Your task to perform on an android device: turn off translation in the chrome app Image 0: 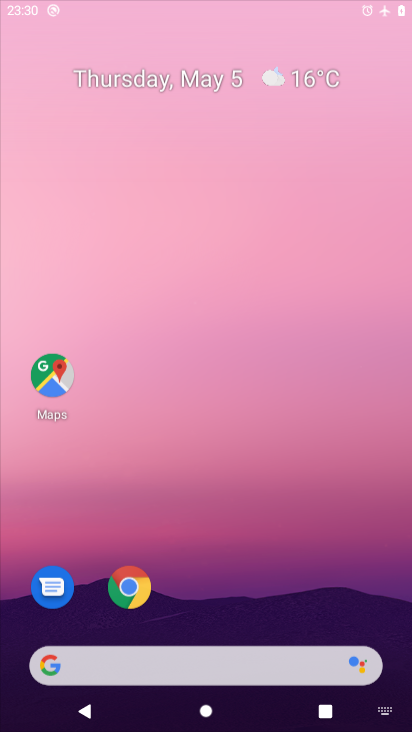
Step 0: click (149, 161)
Your task to perform on an android device: turn off translation in the chrome app Image 1: 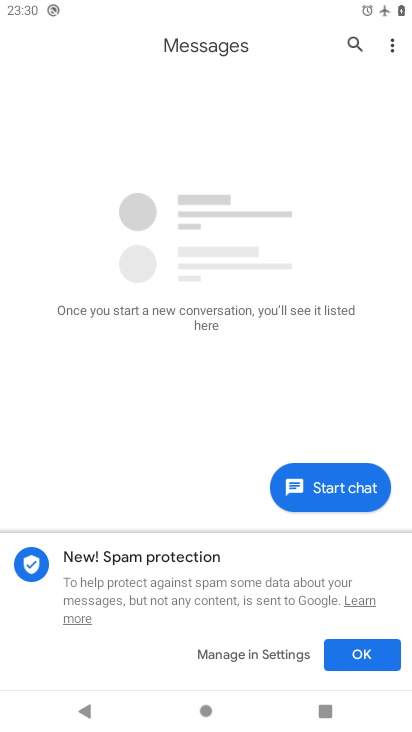
Step 1: press home button
Your task to perform on an android device: turn off translation in the chrome app Image 2: 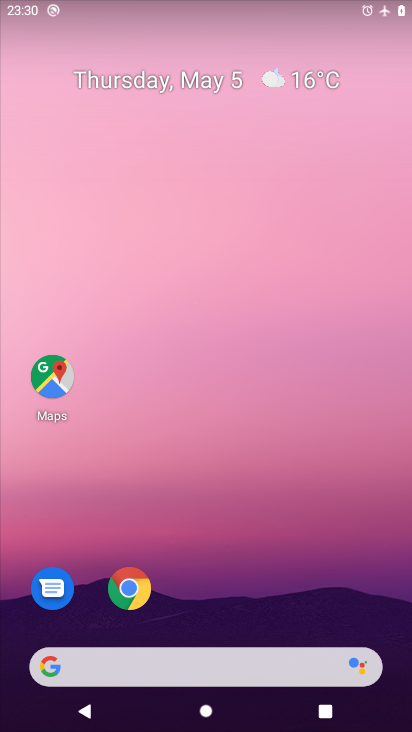
Step 2: drag from (237, 614) to (217, 190)
Your task to perform on an android device: turn off translation in the chrome app Image 3: 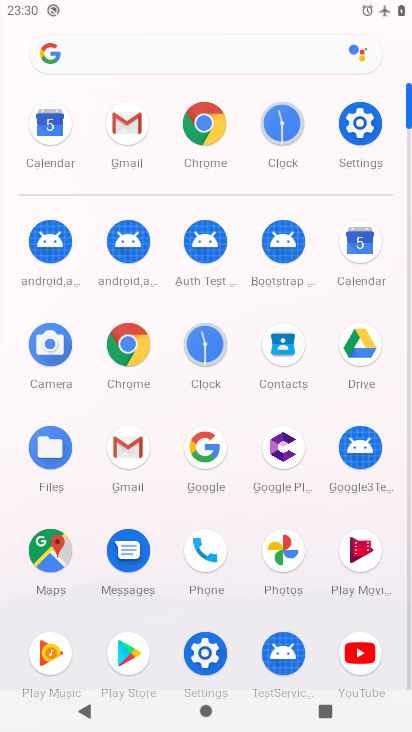
Step 3: click (214, 132)
Your task to perform on an android device: turn off translation in the chrome app Image 4: 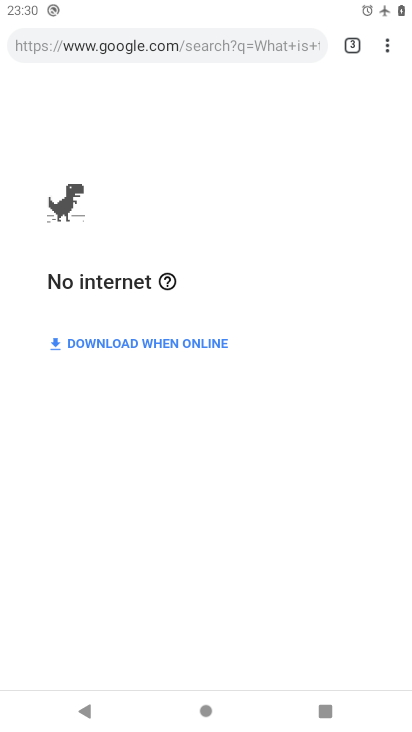
Step 4: drag from (394, 42) to (270, 500)
Your task to perform on an android device: turn off translation in the chrome app Image 5: 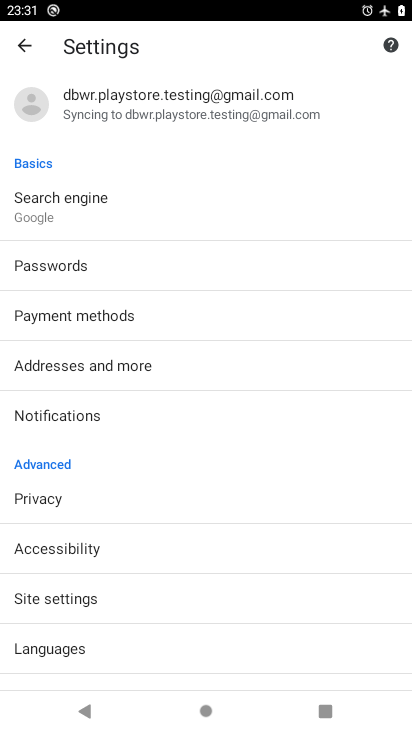
Step 5: drag from (234, 624) to (205, 448)
Your task to perform on an android device: turn off translation in the chrome app Image 6: 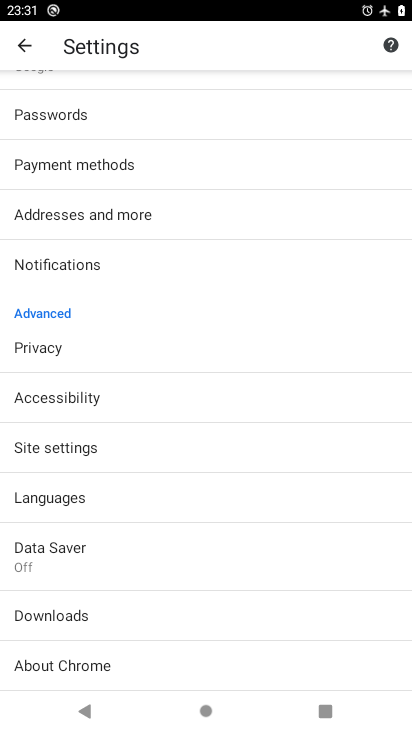
Step 6: click (204, 500)
Your task to perform on an android device: turn off translation in the chrome app Image 7: 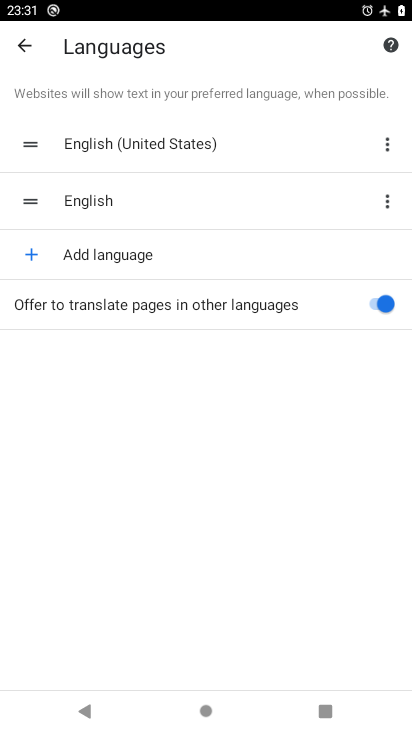
Step 7: click (384, 312)
Your task to perform on an android device: turn off translation in the chrome app Image 8: 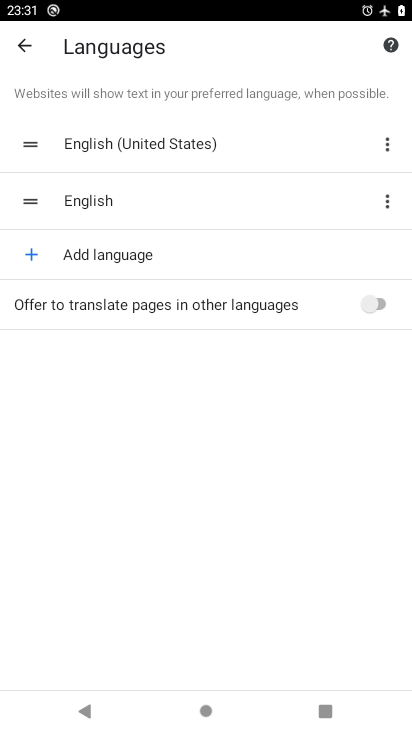
Step 8: task complete